Your task to perform on an android device: Open Chrome and go to settings Image 0: 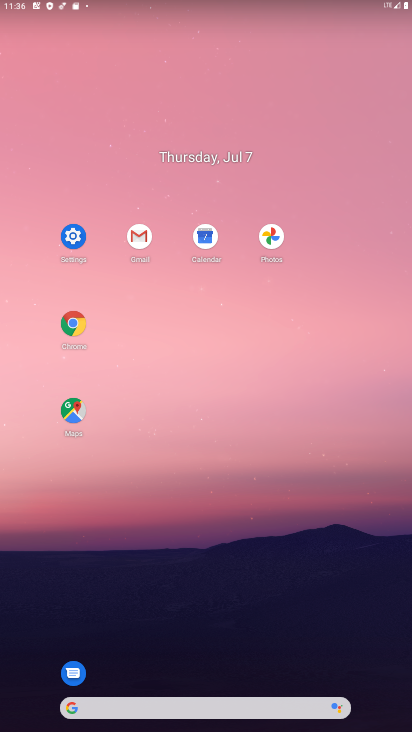
Step 0: click (69, 319)
Your task to perform on an android device: Open Chrome and go to settings Image 1: 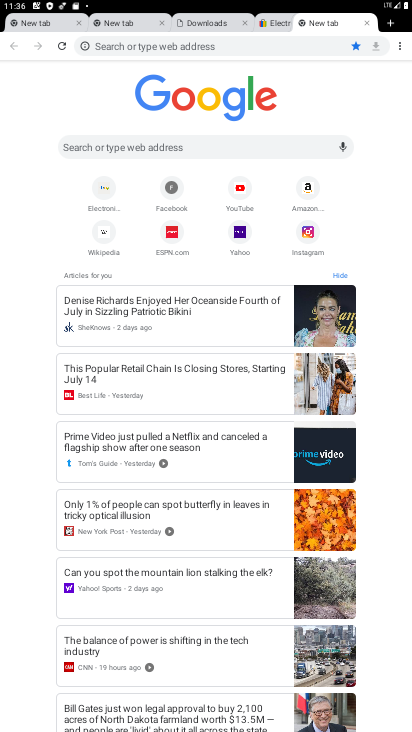
Step 1: click (403, 42)
Your task to perform on an android device: Open Chrome and go to settings Image 2: 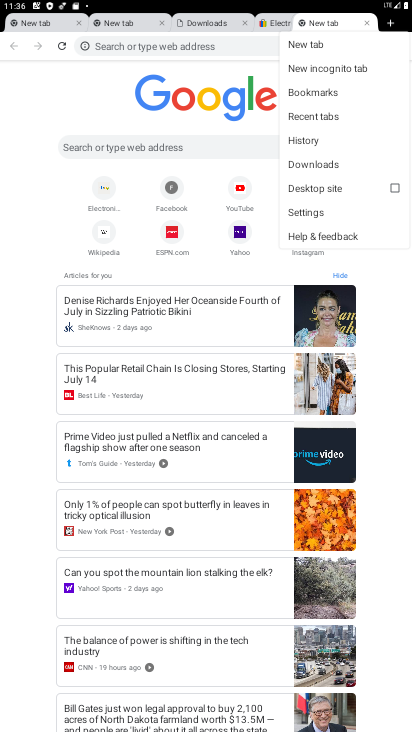
Step 2: click (325, 207)
Your task to perform on an android device: Open Chrome and go to settings Image 3: 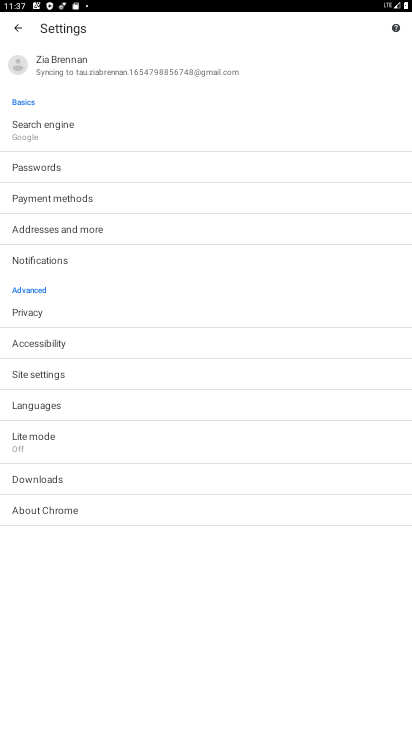
Step 3: task complete